Your task to perform on an android device: What's the weather like in Los Angeles? Image 0: 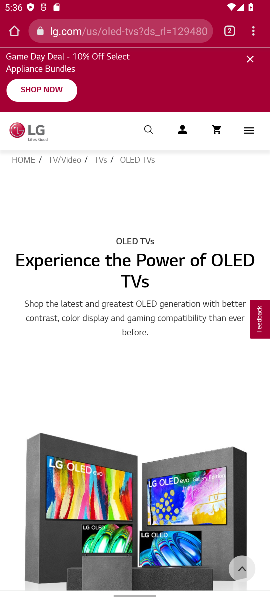
Step 0: press home button
Your task to perform on an android device: What's the weather like in Los Angeles? Image 1: 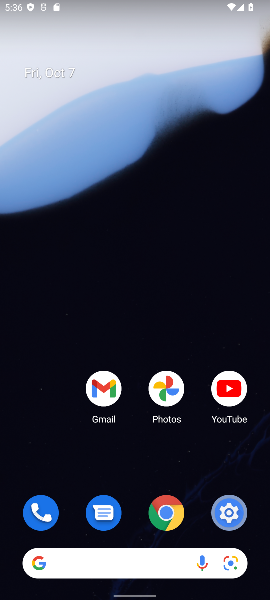
Step 1: click (98, 556)
Your task to perform on an android device: What's the weather like in Los Angeles? Image 2: 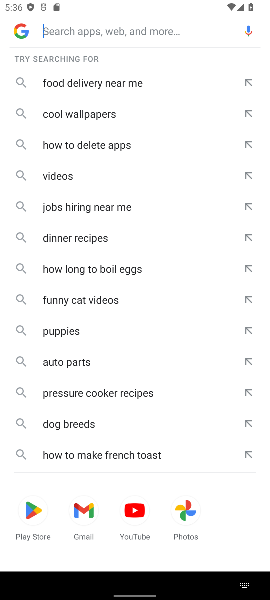
Step 2: type "What's the weather like in Los Angeles"
Your task to perform on an android device: What's the weather like in Los Angeles? Image 3: 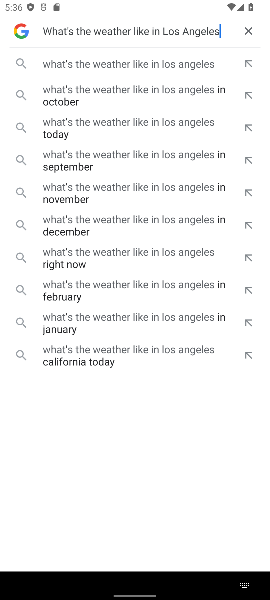
Step 3: click (108, 62)
Your task to perform on an android device: What's the weather like in Los Angeles? Image 4: 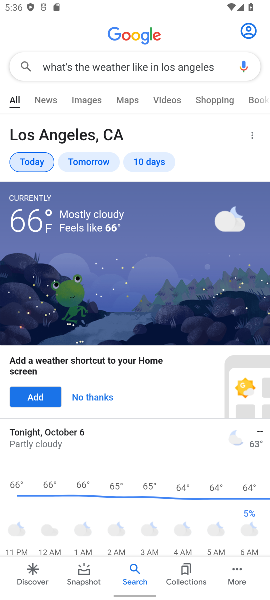
Step 4: task complete